Your task to perform on an android device: turn on showing notifications on the lock screen Image 0: 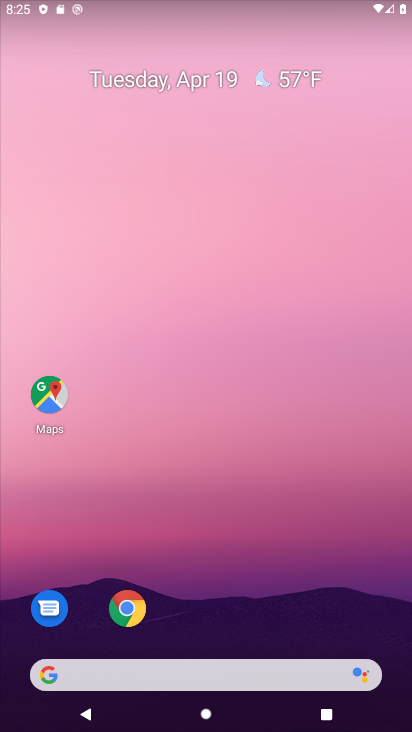
Step 0: drag from (237, 534) to (239, 165)
Your task to perform on an android device: turn on showing notifications on the lock screen Image 1: 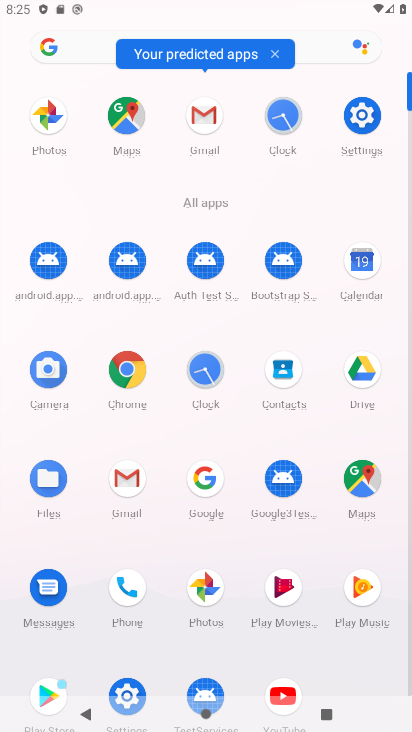
Step 1: click (364, 117)
Your task to perform on an android device: turn on showing notifications on the lock screen Image 2: 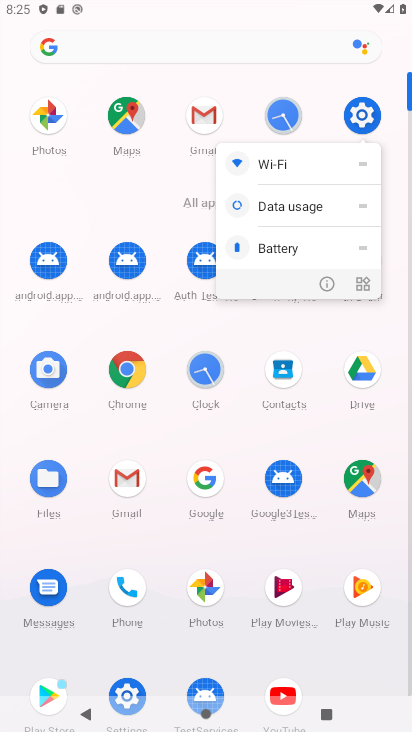
Step 2: click (359, 115)
Your task to perform on an android device: turn on showing notifications on the lock screen Image 3: 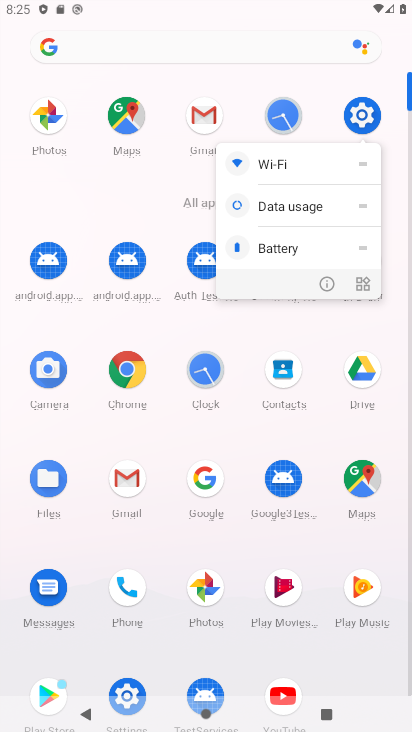
Step 3: click (359, 115)
Your task to perform on an android device: turn on showing notifications on the lock screen Image 4: 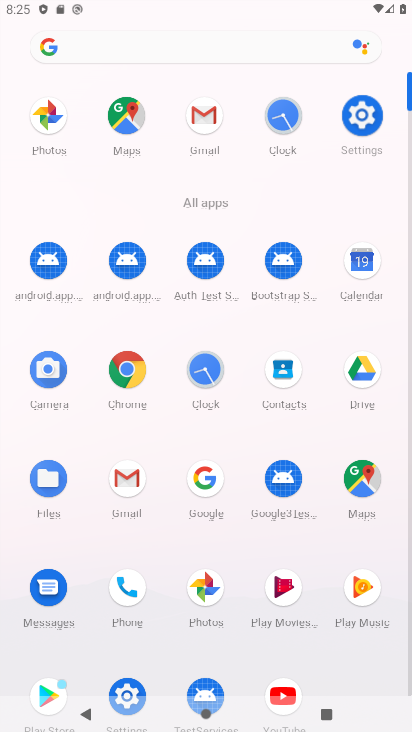
Step 4: click (359, 115)
Your task to perform on an android device: turn on showing notifications on the lock screen Image 5: 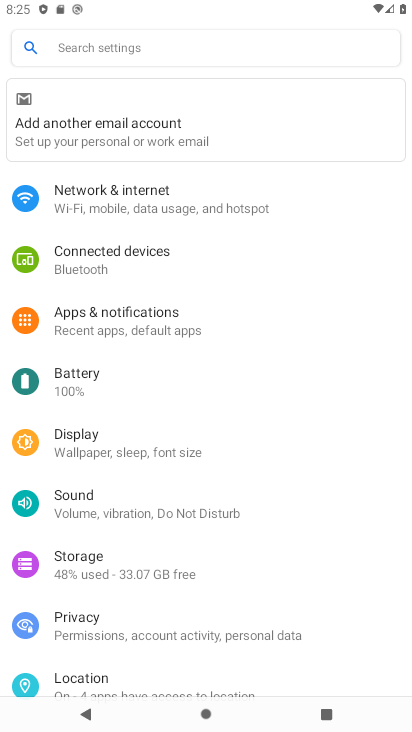
Step 5: click (84, 310)
Your task to perform on an android device: turn on showing notifications on the lock screen Image 6: 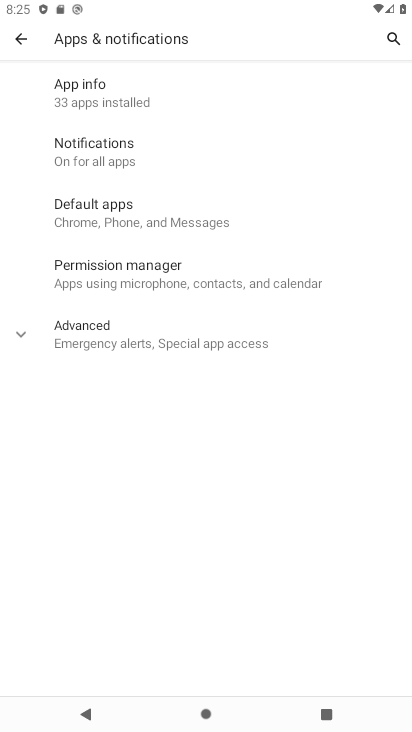
Step 6: click (98, 142)
Your task to perform on an android device: turn on showing notifications on the lock screen Image 7: 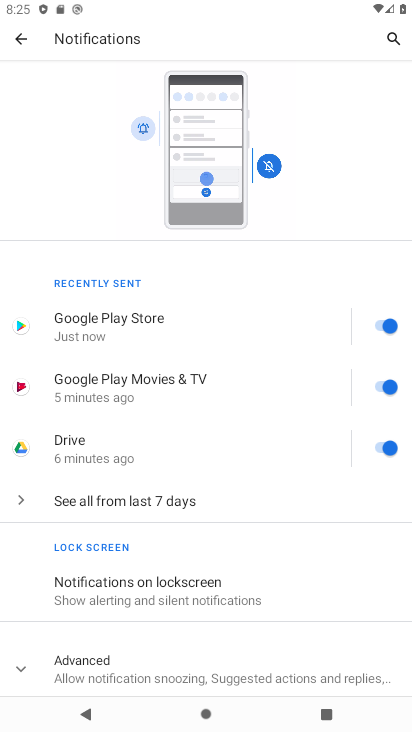
Step 7: click (162, 600)
Your task to perform on an android device: turn on showing notifications on the lock screen Image 8: 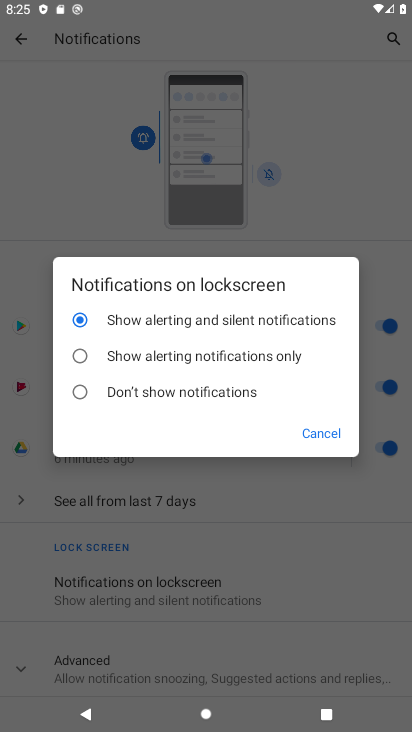
Step 8: task complete